Your task to perform on an android device: Go to Google maps Image 0: 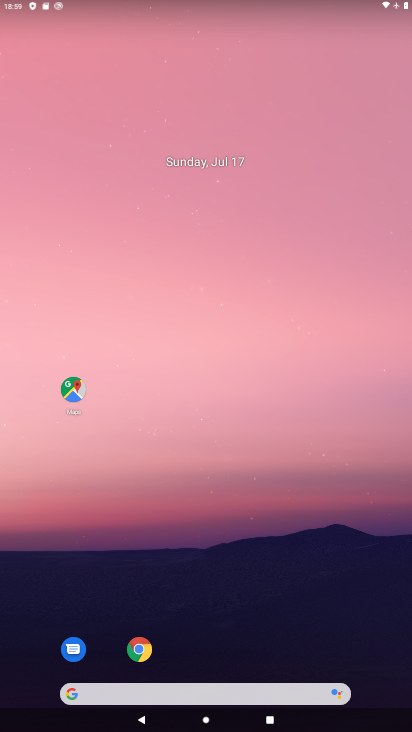
Step 0: click (69, 392)
Your task to perform on an android device: Go to Google maps Image 1: 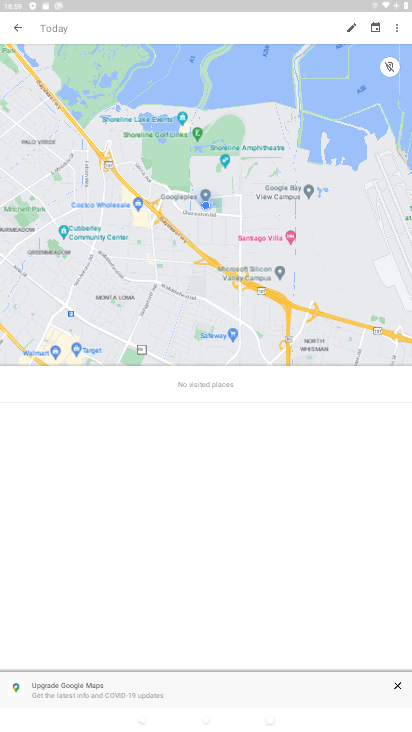
Step 1: task complete